Your task to perform on an android device: Open battery settings Image 0: 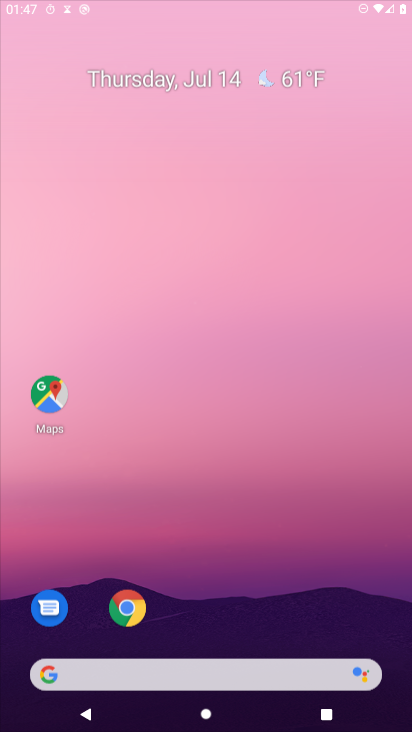
Step 0: press home button
Your task to perform on an android device: Open battery settings Image 1: 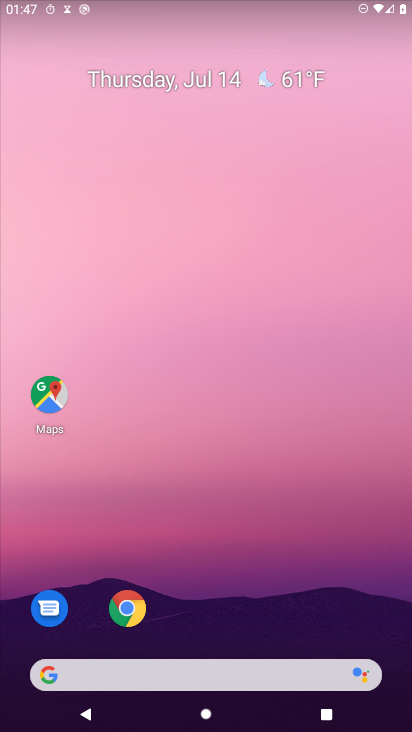
Step 1: drag from (320, 555) to (364, 17)
Your task to perform on an android device: Open battery settings Image 2: 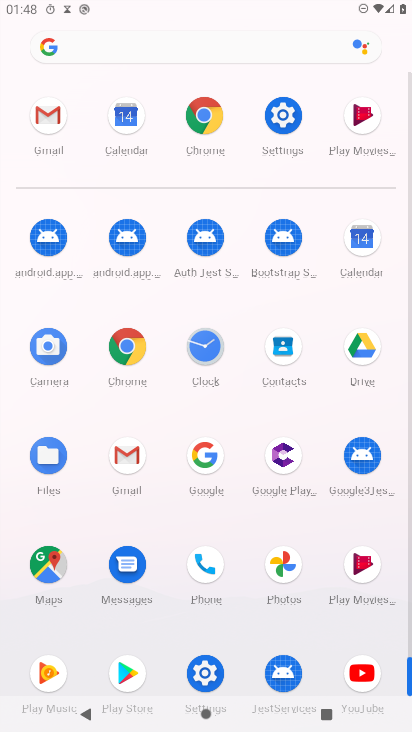
Step 2: click (288, 116)
Your task to perform on an android device: Open battery settings Image 3: 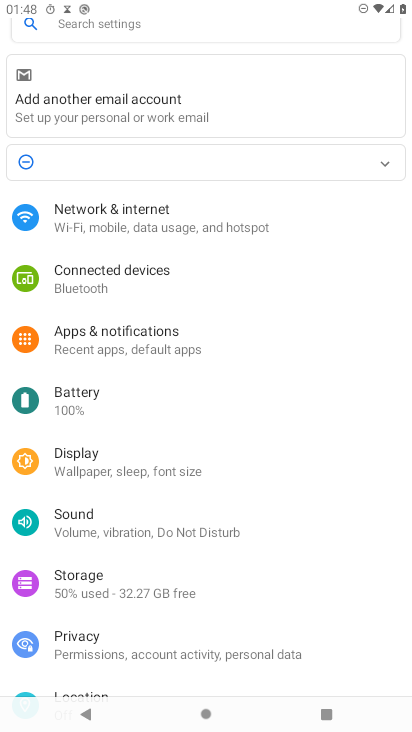
Step 3: click (79, 389)
Your task to perform on an android device: Open battery settings Image 4: 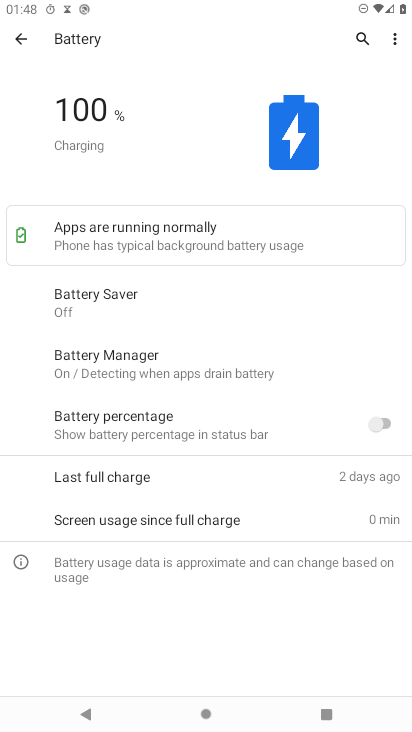
Step 4: task complete